Your task to perform on an android device: Open battery settings Image 0: 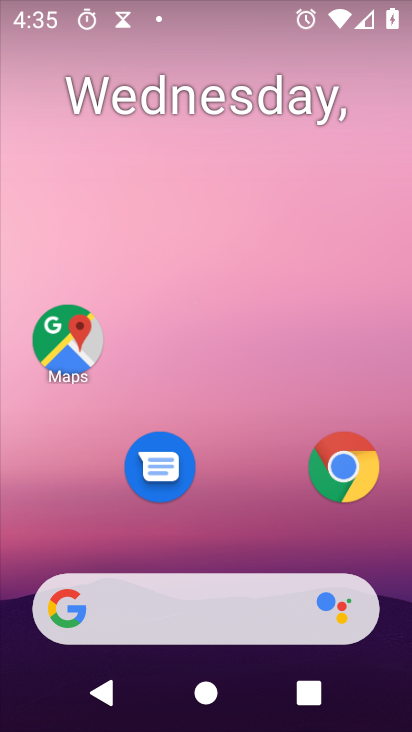
Step 0: drag from (294, 540) to (258, 213)
Your task to perform on an android device: Open battery settings Image 1: 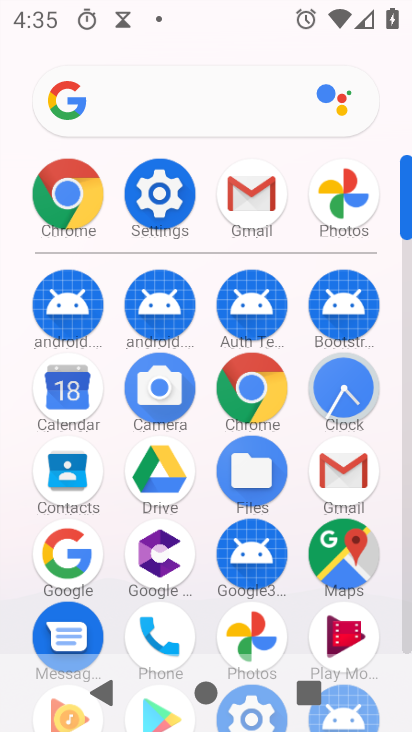
Step 1: click (162, 201)
Your task to perform on an android device: Open battery settings Image 2: 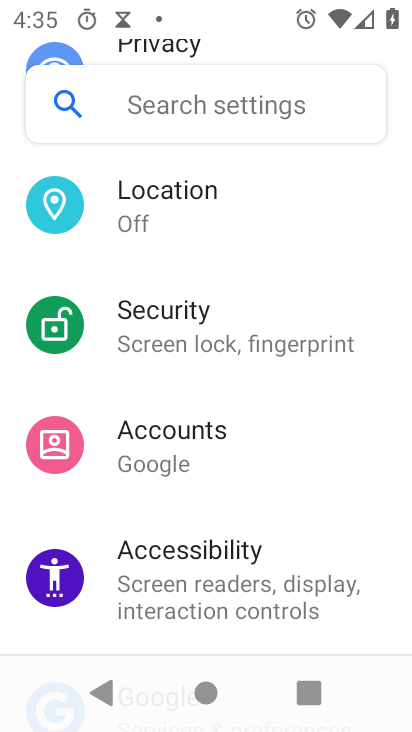
Step 2: drag from (336, 214) to (286, 702)
Your task to perform on an android device: Open battery settings Image 3: 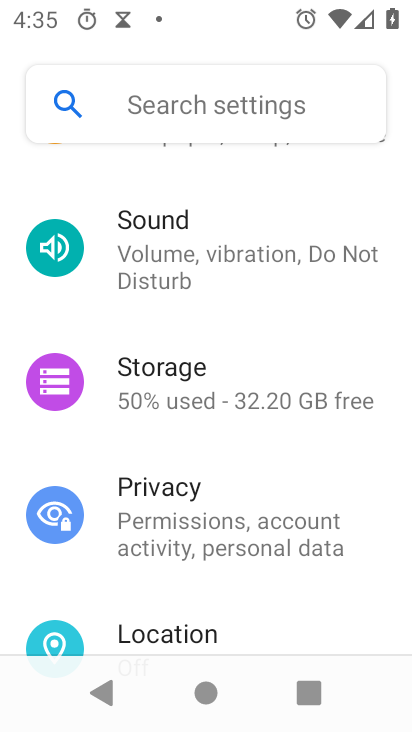
Step 3: drag from (268, 189) to (236, 608)
Your task to perform on an android device: Open battery settings Image 4: 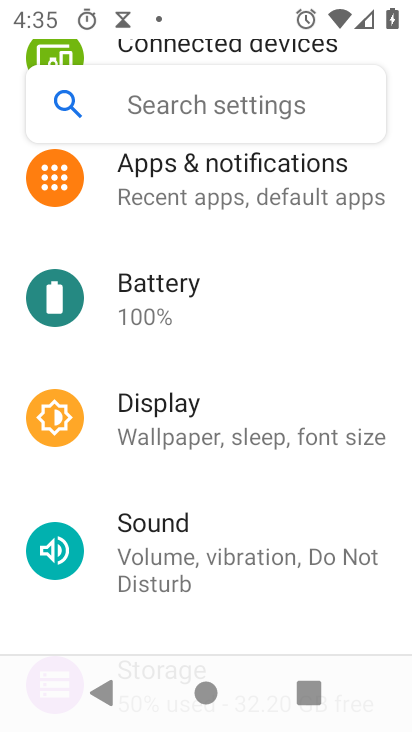
Step 4: click (205, 308)
Your task to perform on an android device: Open battery settings Image 5: 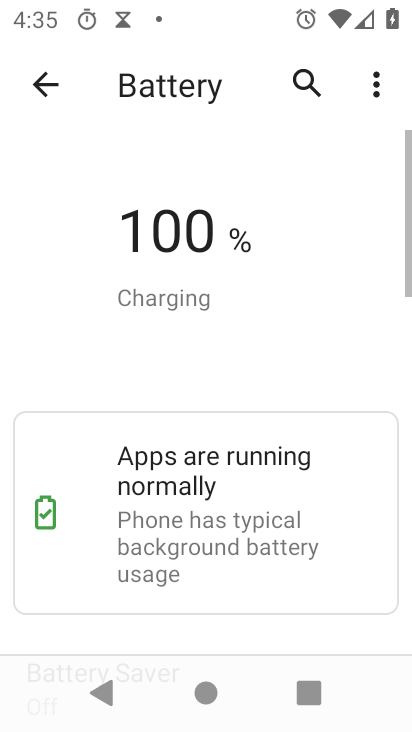
Step 5: task complete